Your task to perform on an android device: Search for a new phone on Amazon. Image 0: 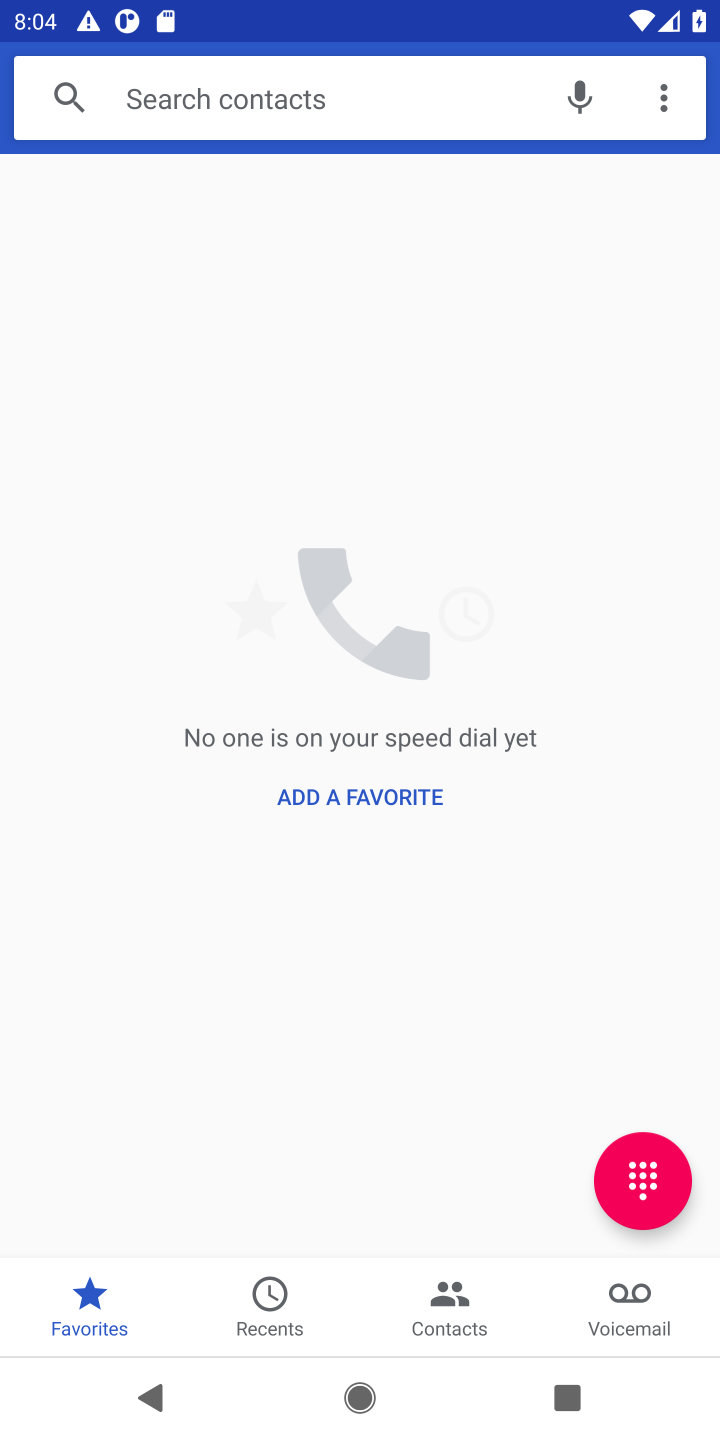
Step 0: press home button
Your task to perform on an android device: Search for a new phone on Amazon. Image 1: 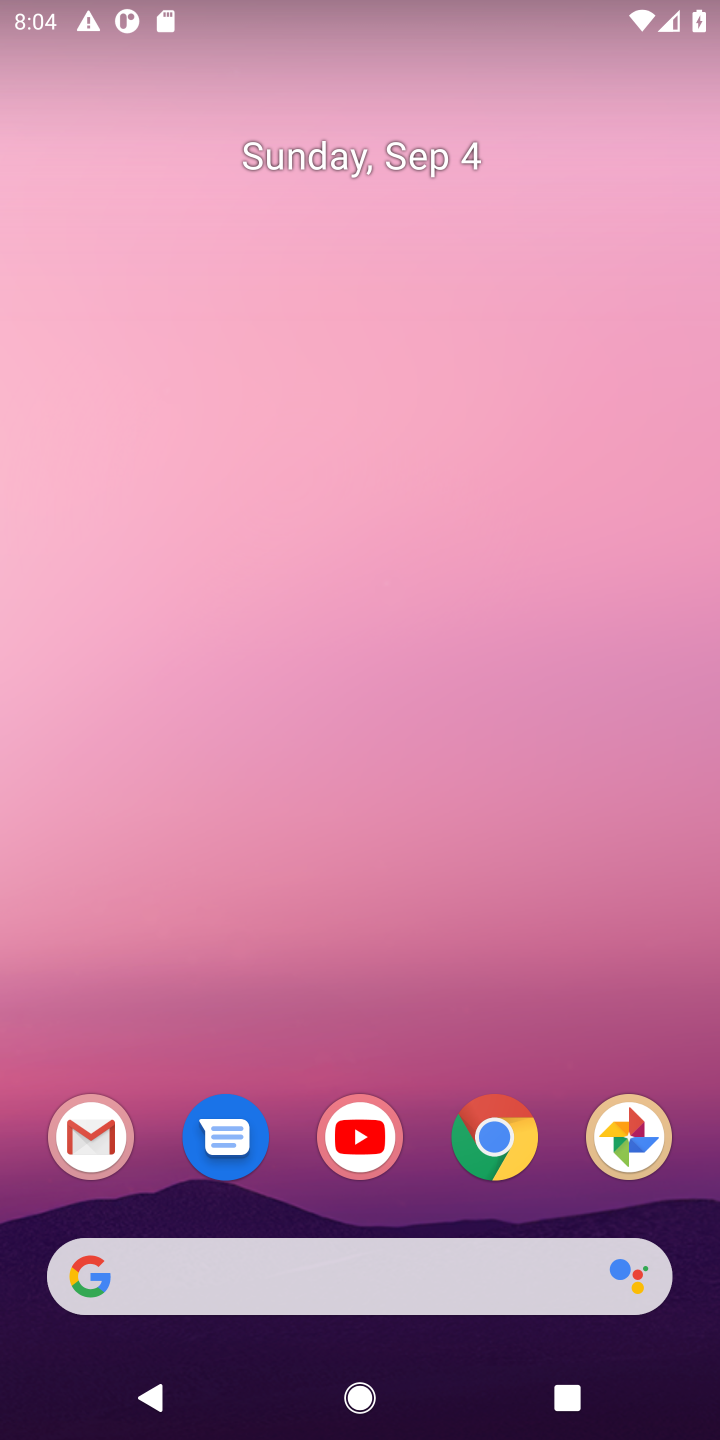
Step 1: click (495, 1137)
Your task to perform on an android device: Search for a new phone on Amazon. Image 2: 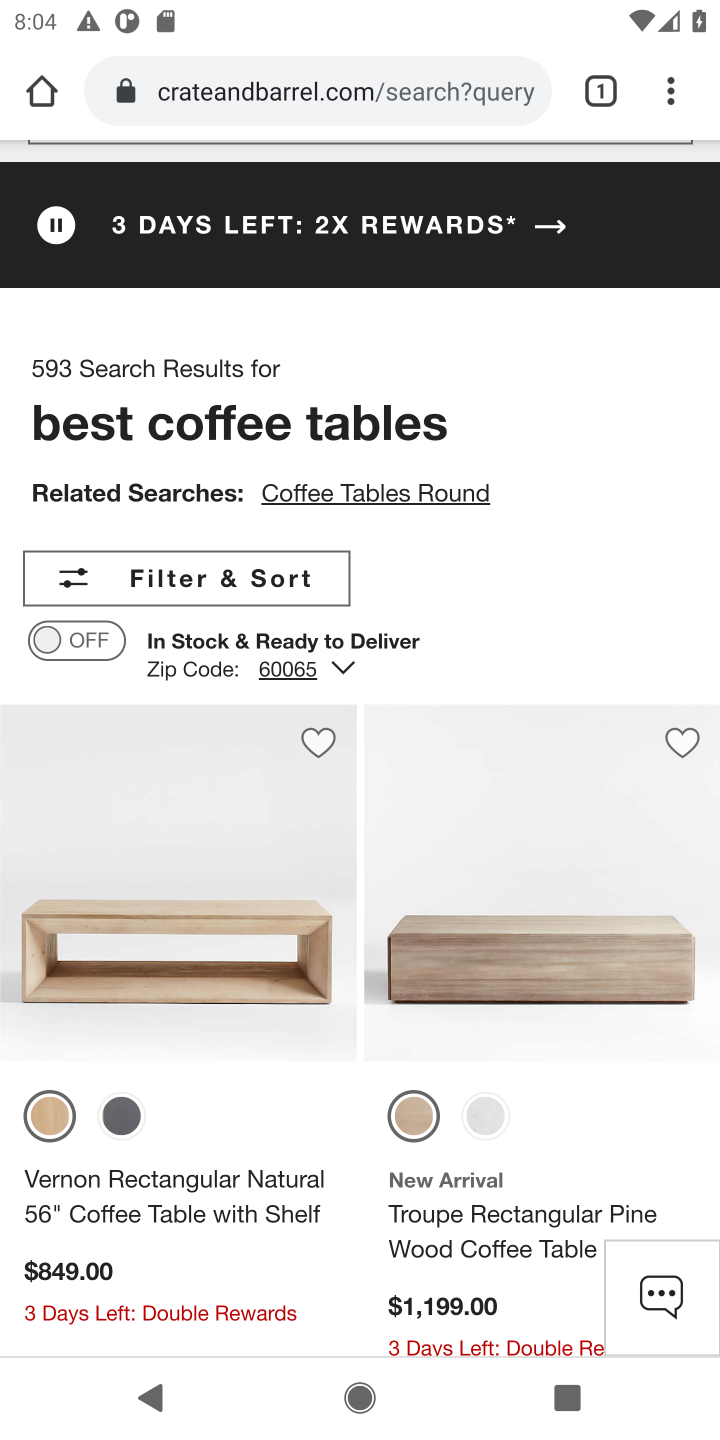
Step 2: click (418, 99)
Your task to perform on an android device: Search for a new phone on Amazon. Image 3: 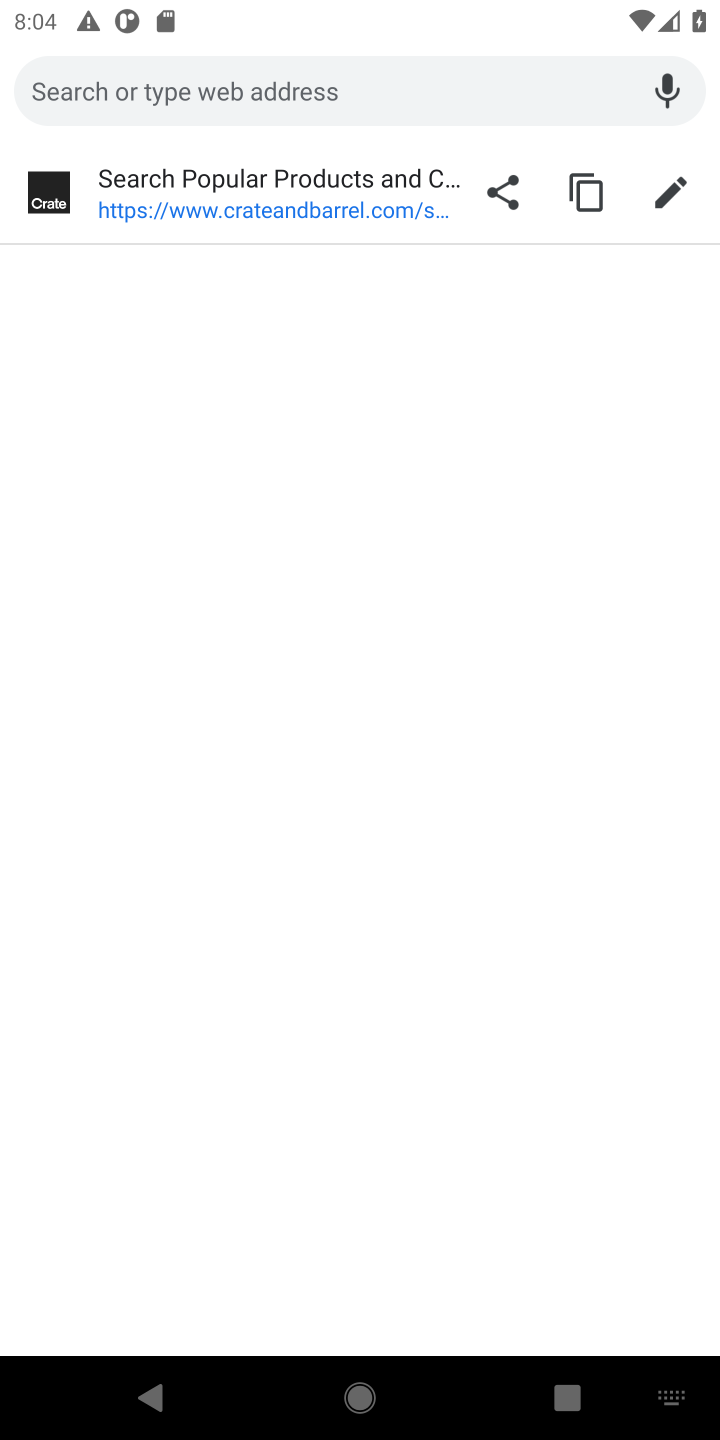
Step 3: type "Amazon"
Your task to perform on an android device: Search for a new phone on Amazon. Image 4: 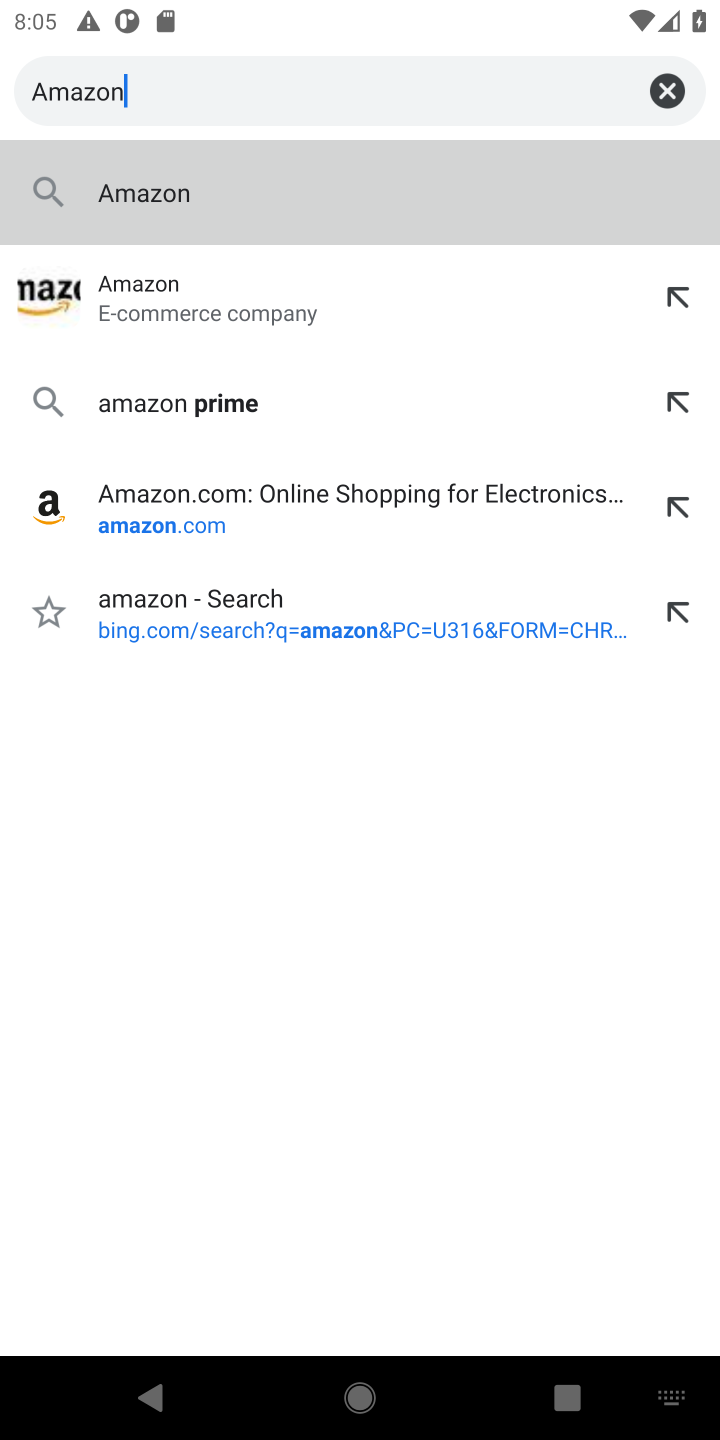
Step 4: click (157, 292)
Your task to perform on an android device: Search for a new phone on Amazon. Image 5: 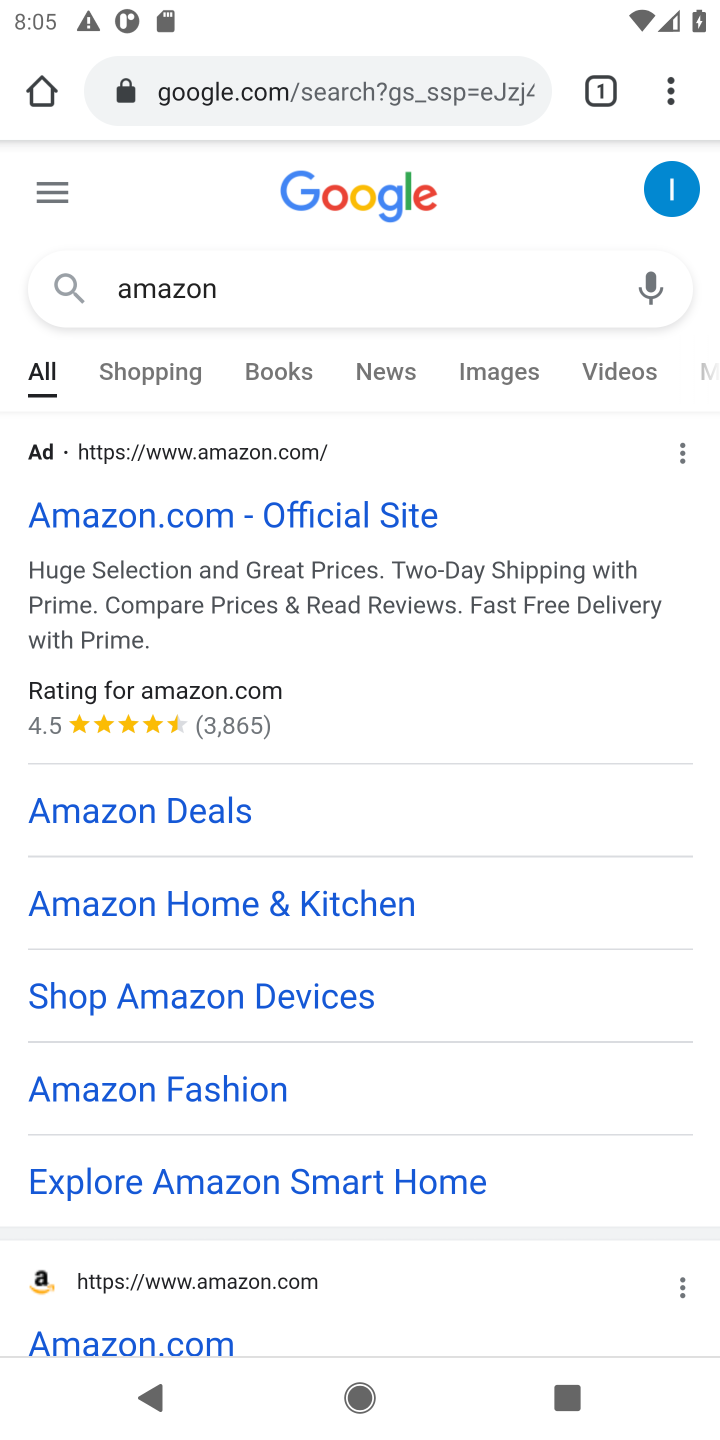
Step 5: drag from (208, 1301) to (460, 893)
Your task to perform on an android device: Search for a new phone on Amazon. Image 6: 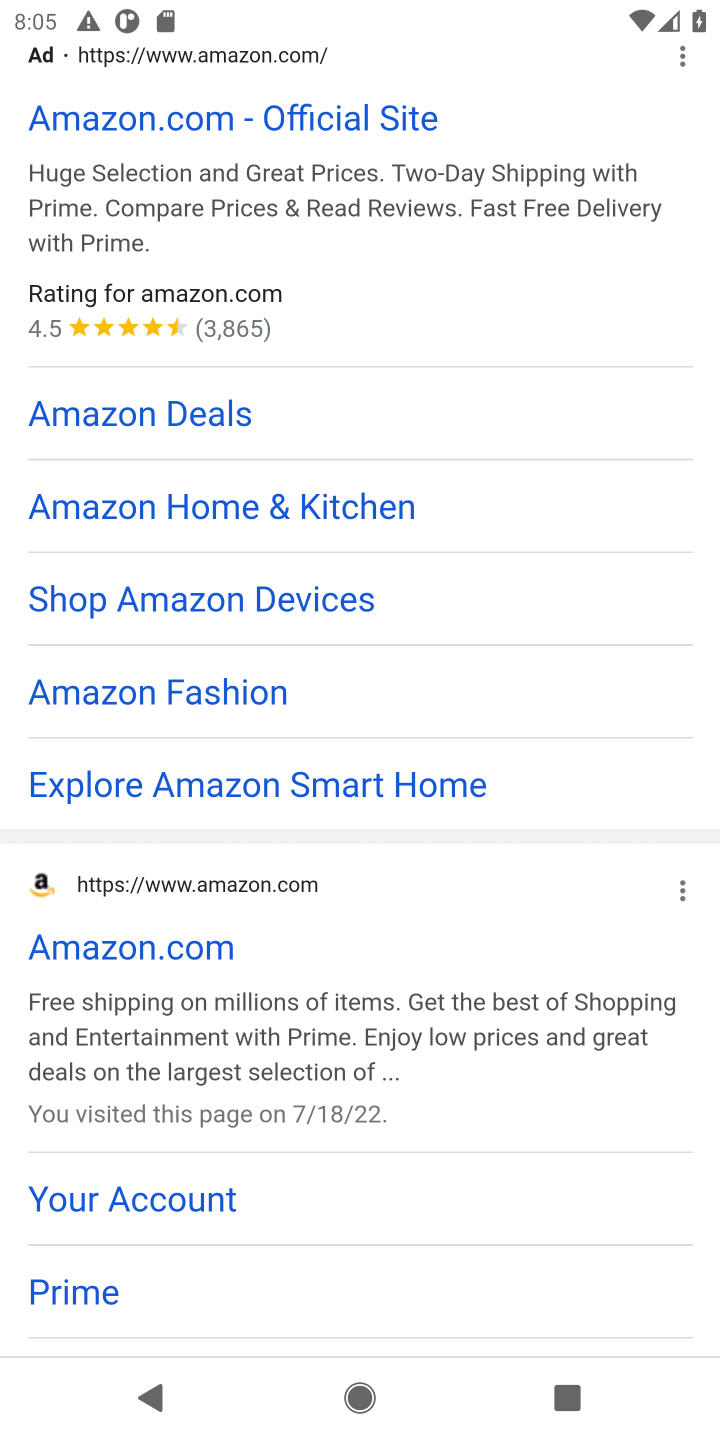
Step 6: click (239, 968)
Your task to perform on an android device: Search for a new phone on Amazon. Image 7: 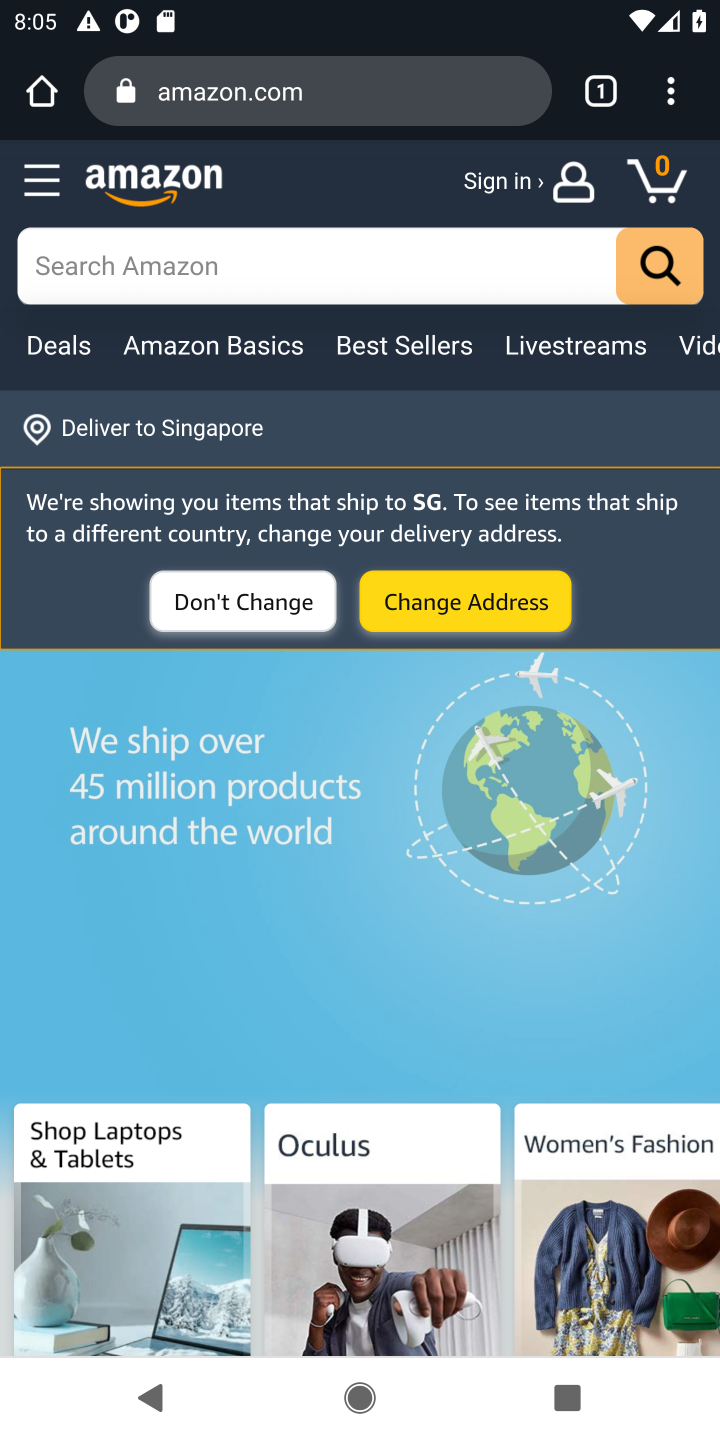
Step 7: click (308, 263)
Your task to perform on an android device: Search for a new phone on Amazon. Image 8: 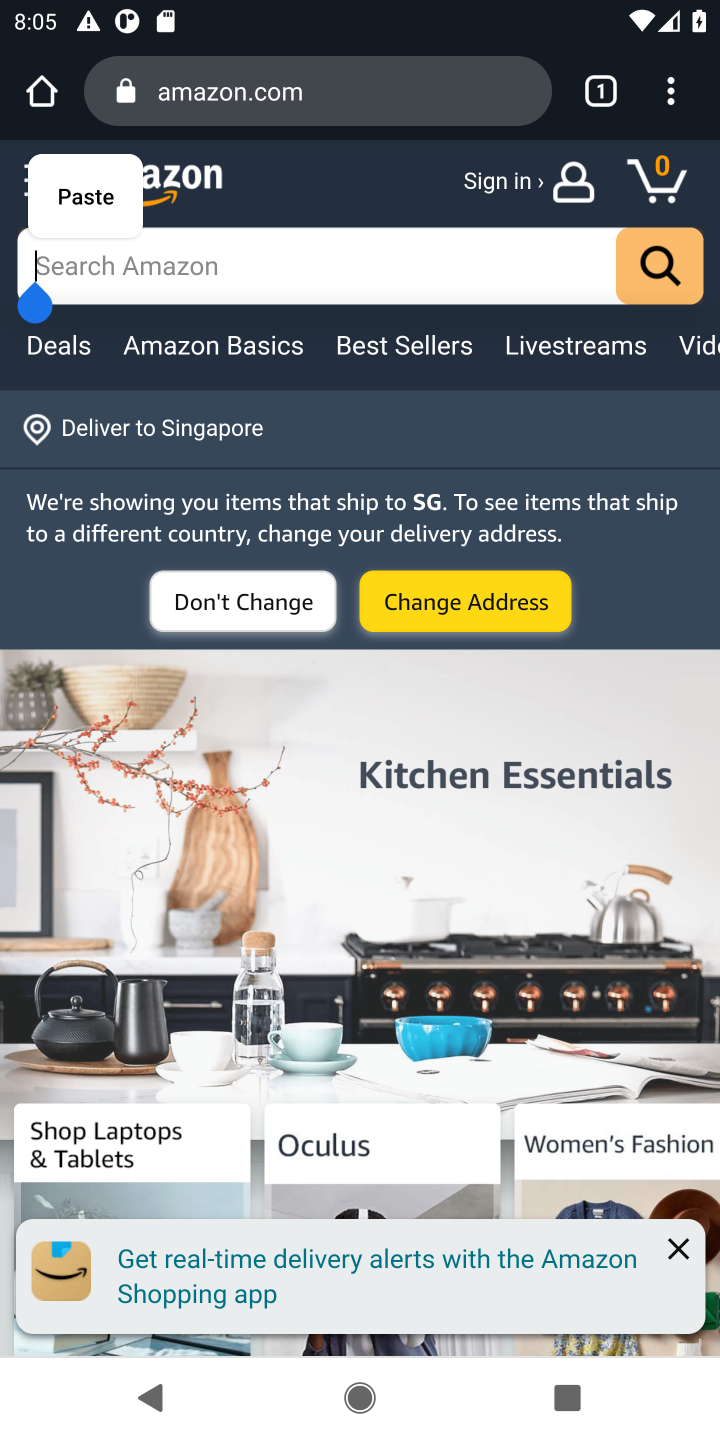
Step 8: click (308, 263)
Your task to perform on an android device: Search for a new phone on Amazon. Image 9: 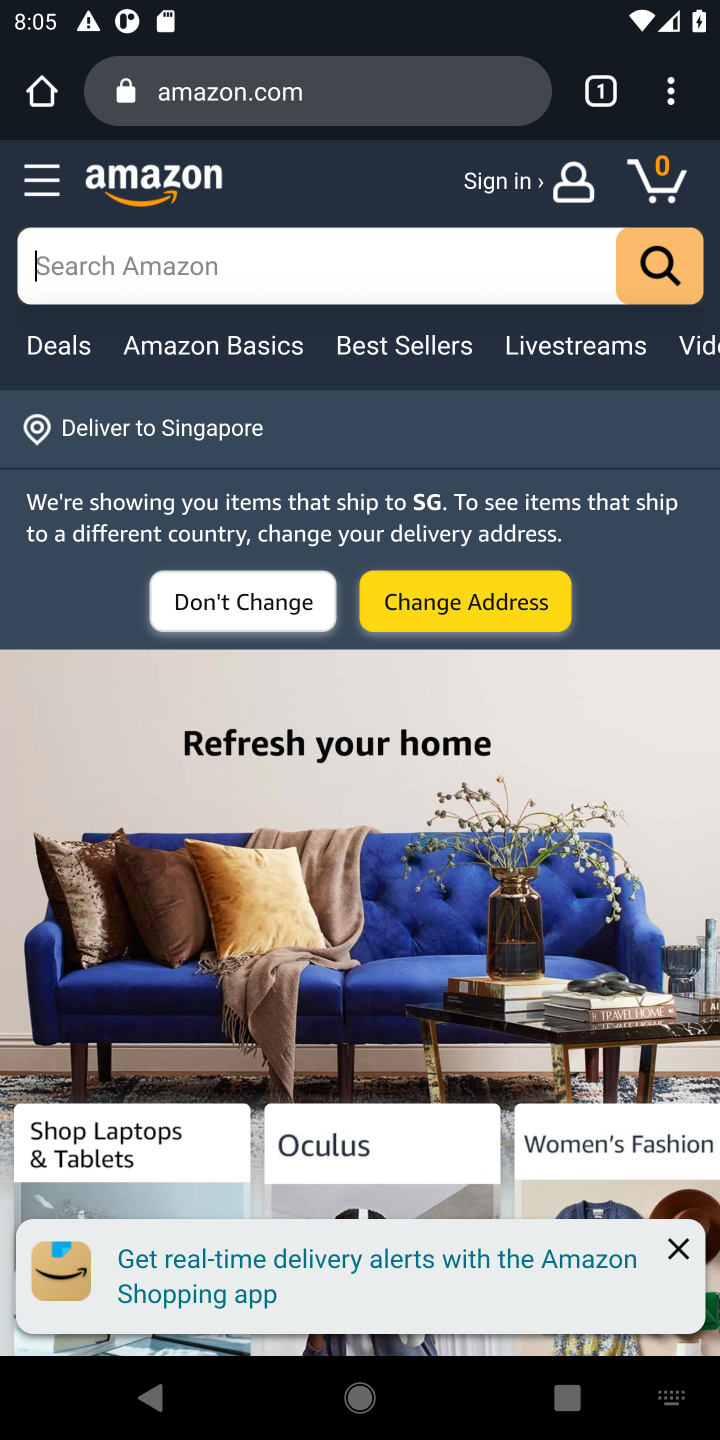
Step 9: type "new phone"
Your task to perform on an android device: Search for a new phone on Amazon. Image 10: 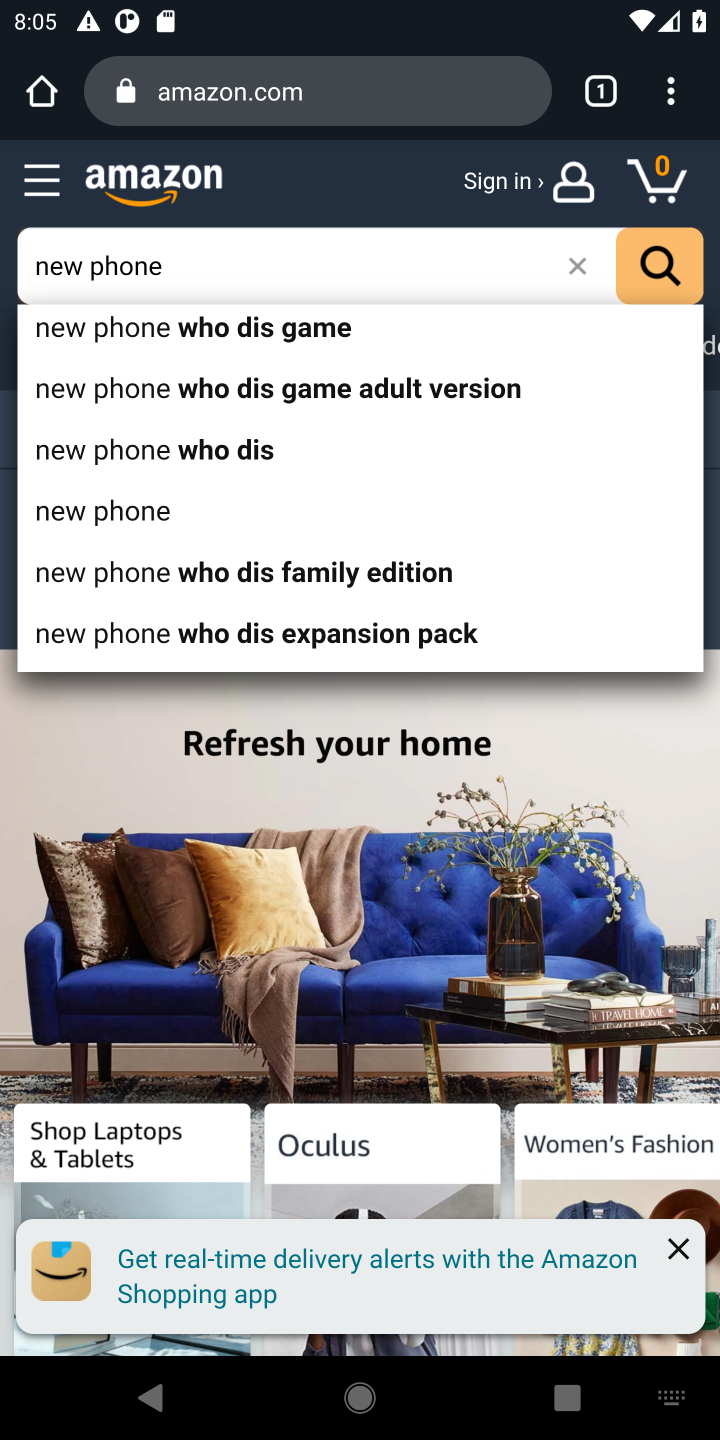
Step 10: click (153, 511)
Your task to perform on an android device: Search for a new phone on Amazon. Image 11: 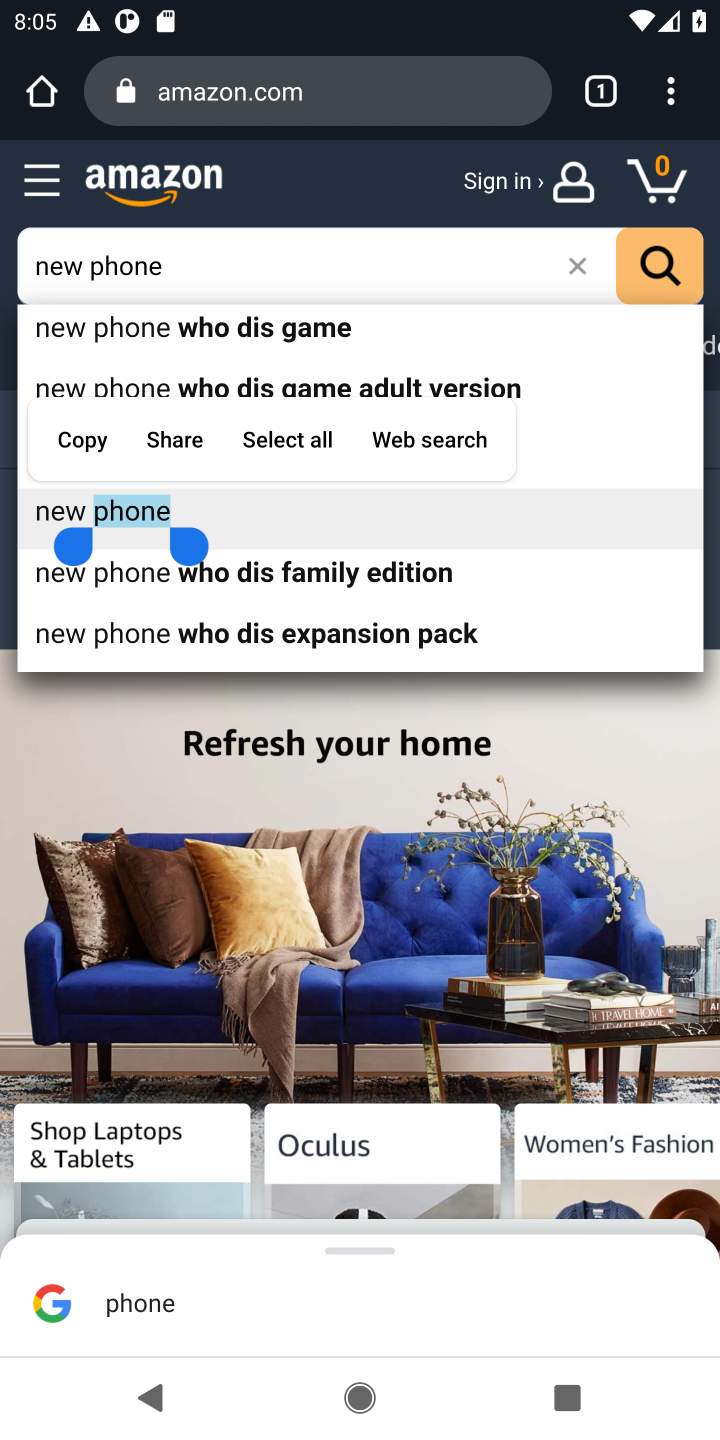
Step 11: click (664, 274)
Your task to perform on an android device: Search for a new phone on Amazon. Image 12: 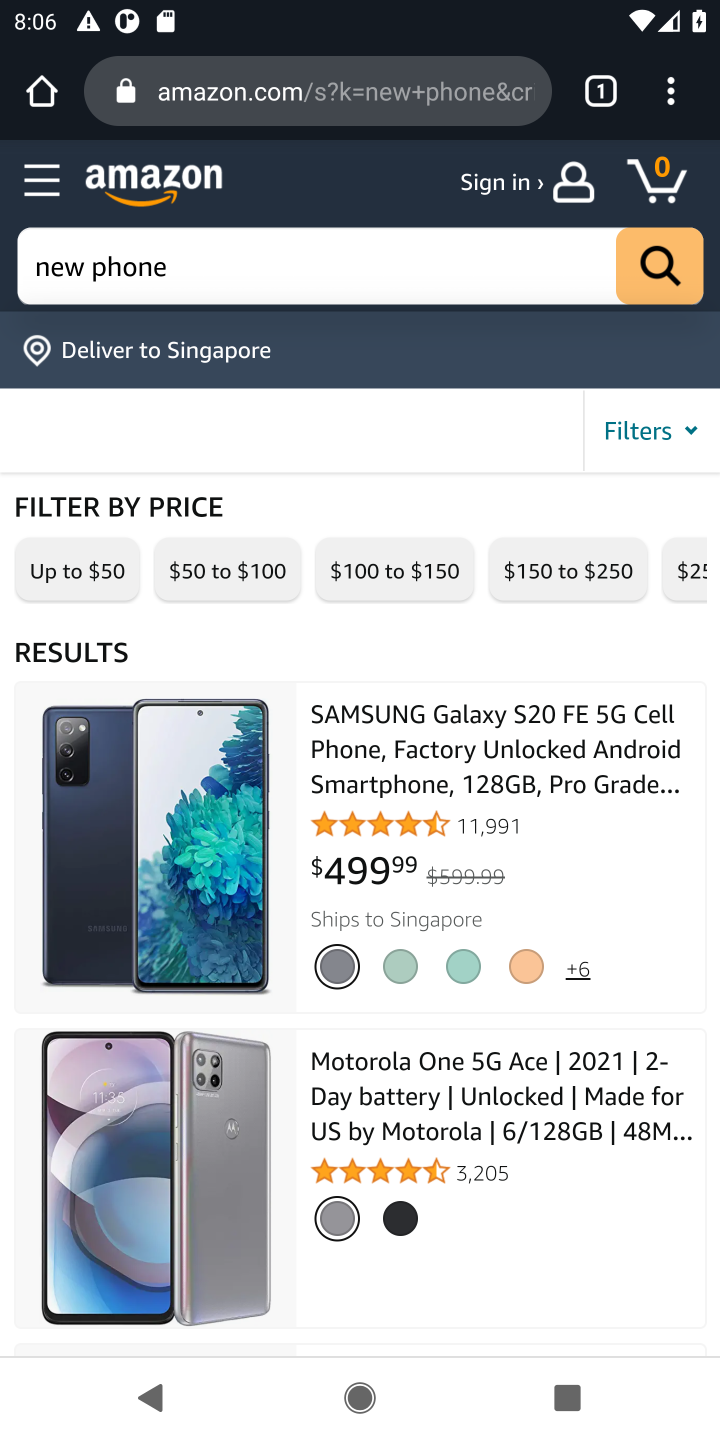
Step 12: task complete